Your task to perform on an android device: Open Android settings Image 0: 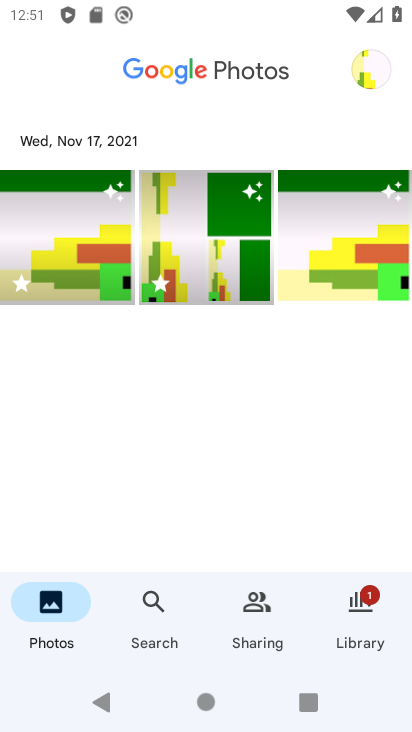
Step 0: press home button
Your task to perform on an android device: Open Android settings Image 1: 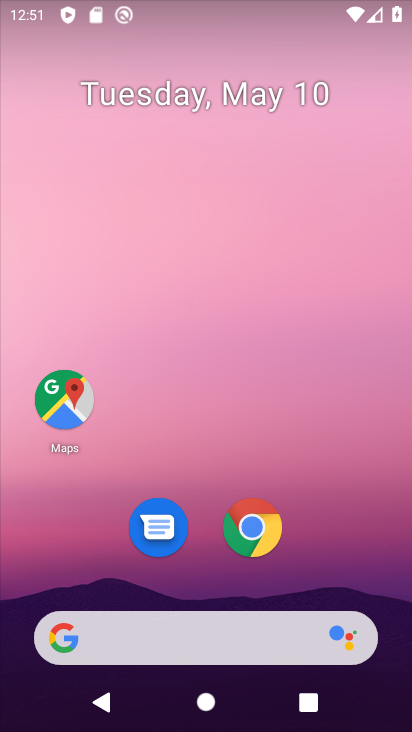
Step 1: drag from (327, 563) to (309, 107)
Your task to perform on an android device: Open Android settings Image 2: 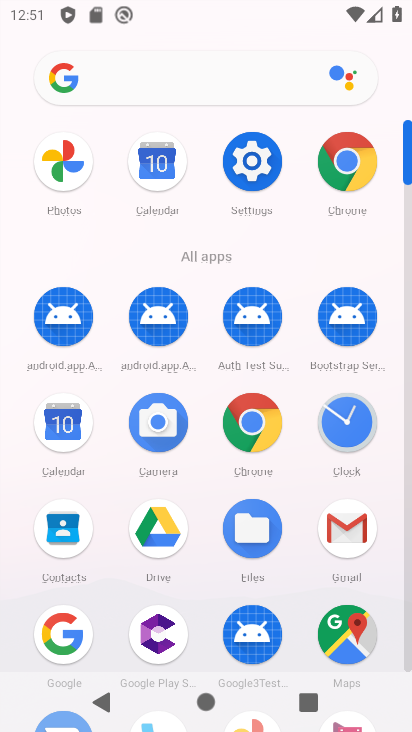
Step 2: click (240, 170)
Your task to perform on an android device: Open Android settings Image 3: 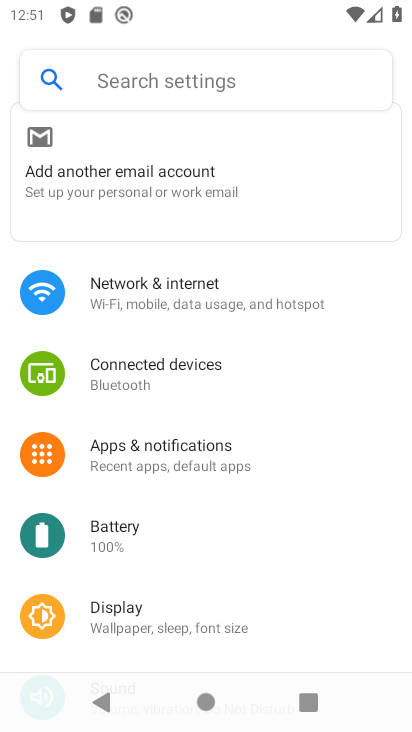
Step 3: drag from (301, 511) to (301, 187)
Your task to perform on an android device: Open Android settings Image 4: 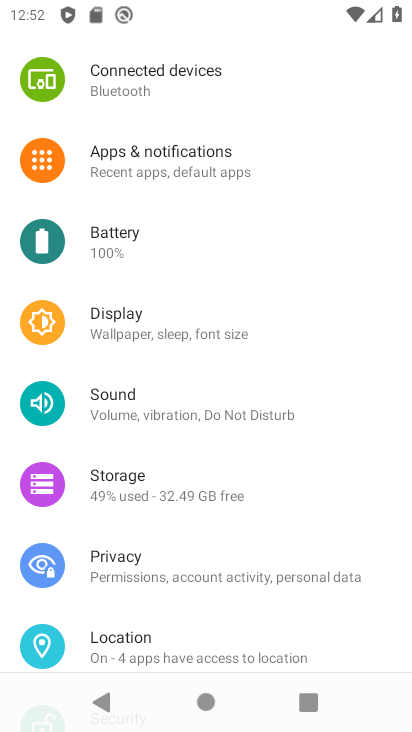
Step 4: drag from (292, 589) to (318, 231)
Your task to perform on an android device: Open Android settings Image 5: 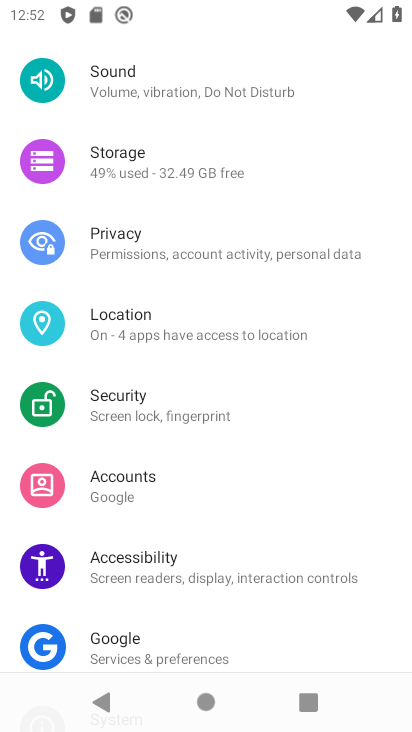
Step 5: drag from (256, 612) to (287, 281)
Your task to perform on an android device: Open Android settings Image 6: 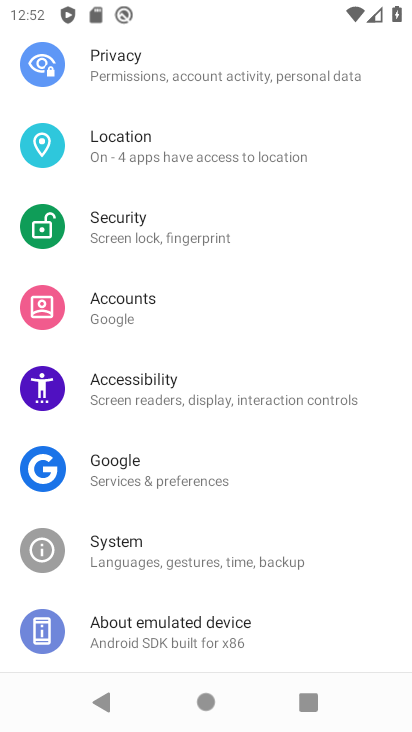
Step 6: click (215, 639)
Your task to perform on an android device: Open Android settings Image 7: 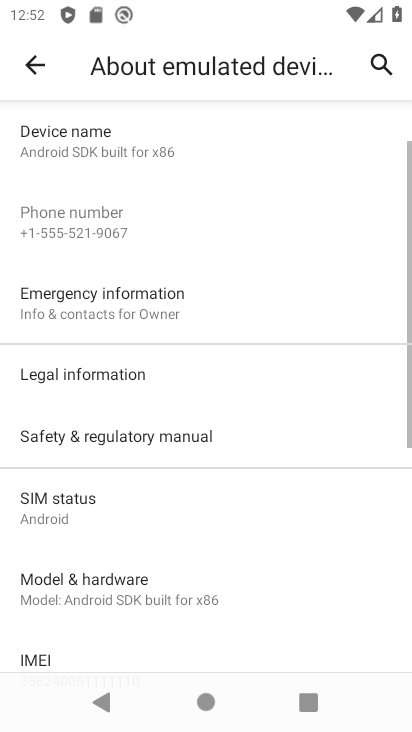
Step 7: drag from (184, 578) to (190, 209)
Your task to perform on an android device: Open Android settings Image 8: 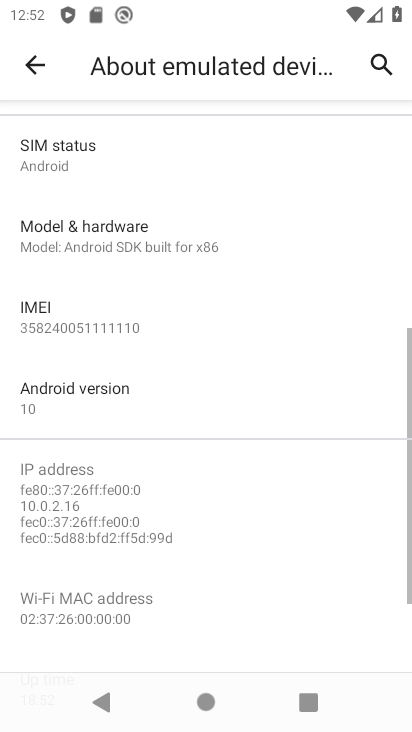
Step 8: click (153, 399)
Your task to perform on an android device: Open Android settings Image 9: 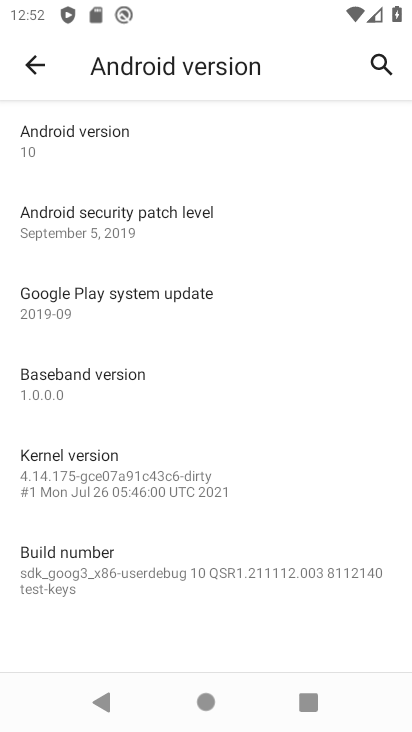
Step 9: click (112, 156)
Your task to perform on an android device: Open Android settings Image 10: 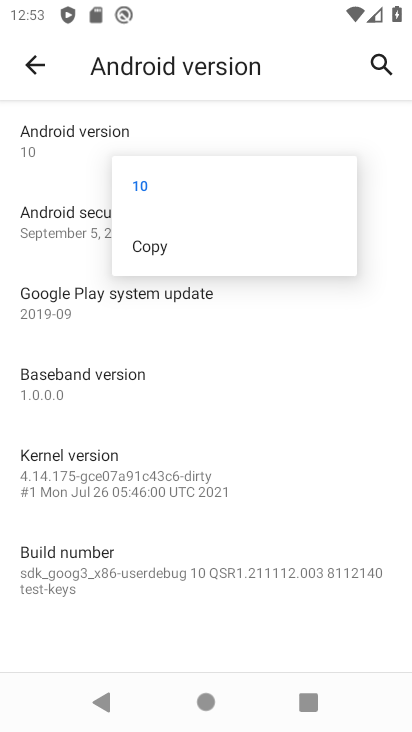
Step 10: task complete